Your task to perform on an android device: Go to internet settings Image 0: 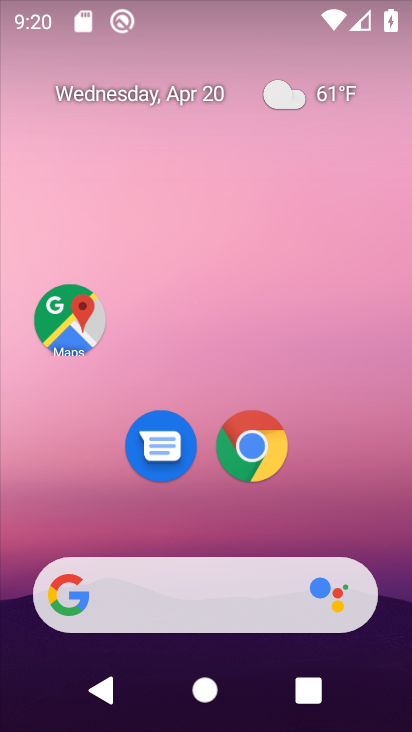
Step 0: drag from (377, 500) to (364, 55)
Your task to perform on an android device: Go to internet settings Image 1: 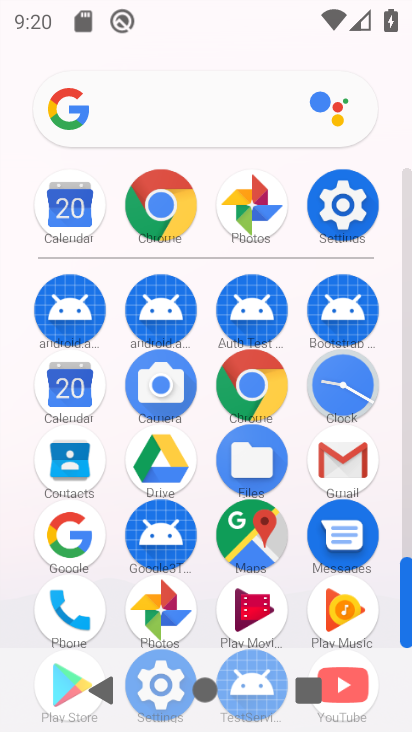
Step 1: click (350, 189)
Your task to perform on an android device: Go to internet settings Image 2: 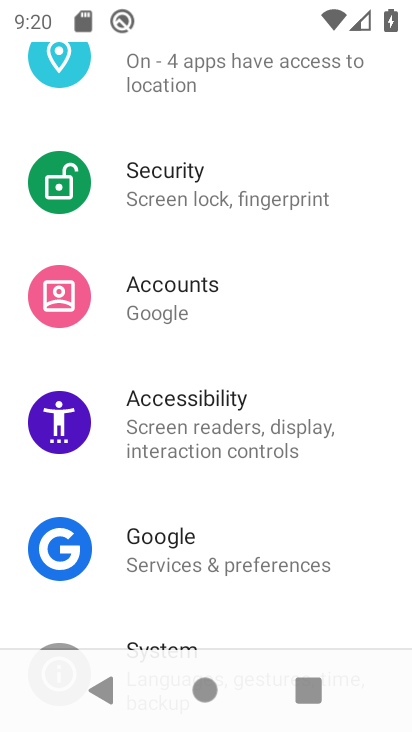
Step 2: drag from (273, 118) to (240, 600)
Your task to perform on an android device: Go to internet settings Image 3: 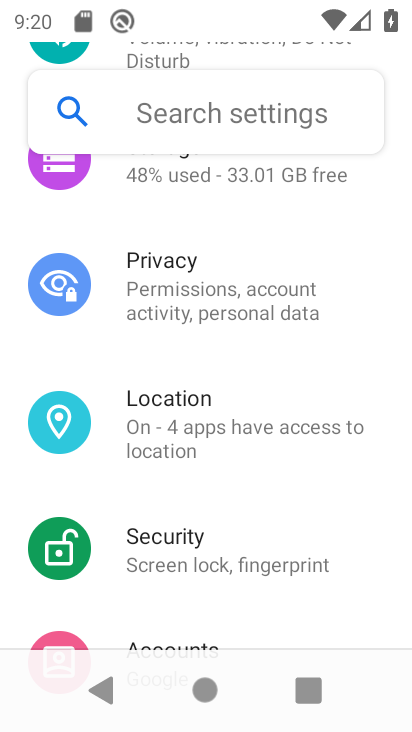
Step 3: drag from (339, 200) to (310, 607)
Your task to perform on an android device: Go to internet settings Image 4: 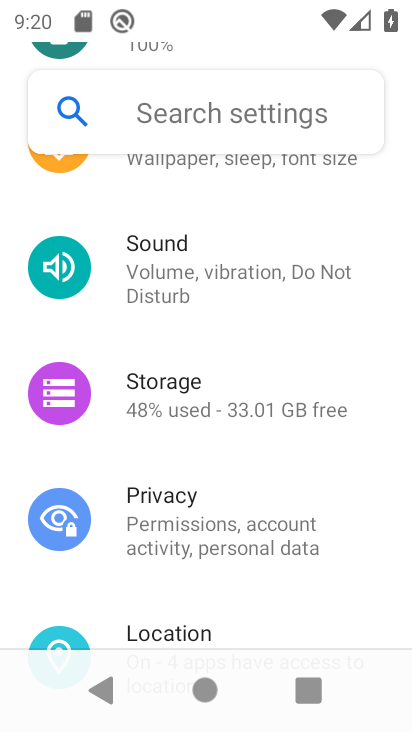
Step 4: drag from (311, 294) to (316, 572)
Your task to perform on an android device: Go to internet settings Image 5: 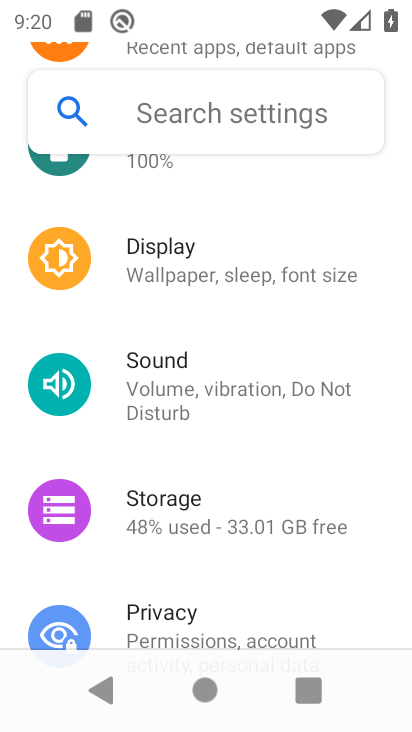
Step 5: drag from (313, 222) to (304, 624)
Your task to perform on an android device: Go to internet settings Image 6: 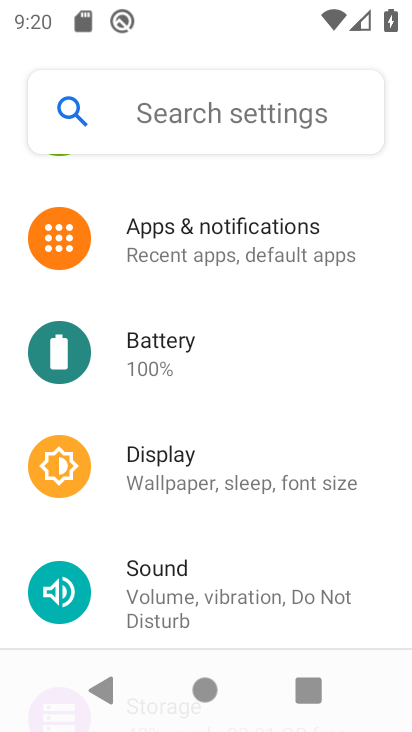
Step 6: drag from (281, 193) to (313, 618)
Your task to perform on an android device: Go to internet settings Image 7: 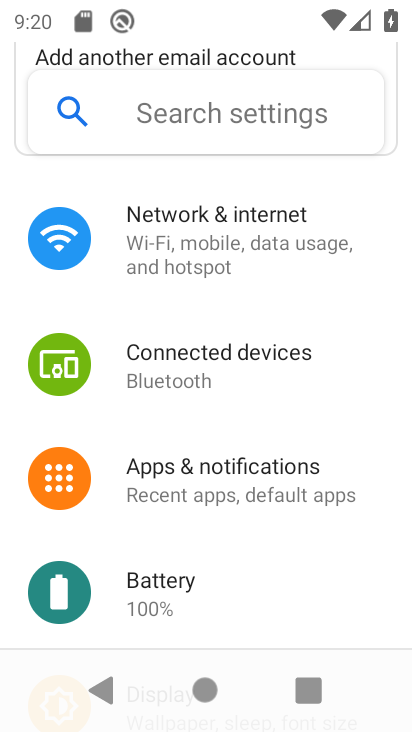
Step 7: click (270, 231)
Your task to perform on an android device: Go to internet settings Image 8: 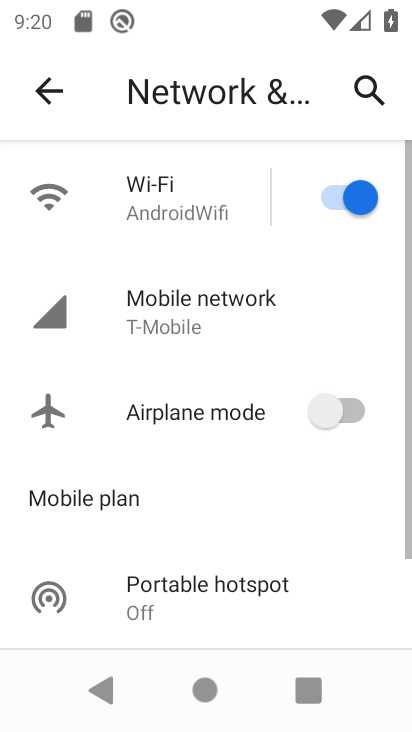
Step 8: click (204, 307)
Your task to perform on an android device: Go to internet settings Image 9: 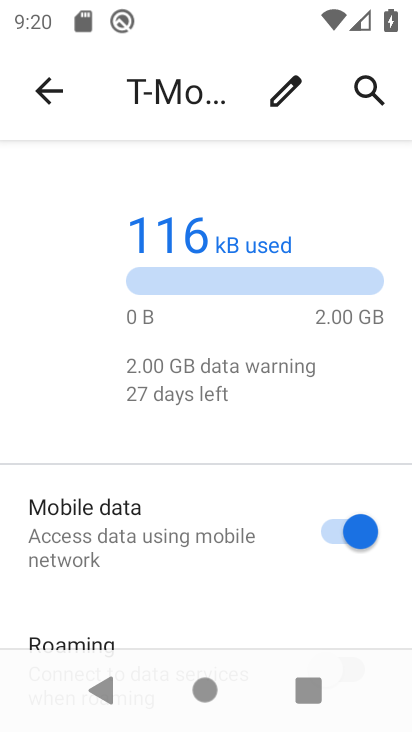
Step 9: task complete